Your task to perform on an android device: Search for seafood restaurants on Google Maps Image 0: 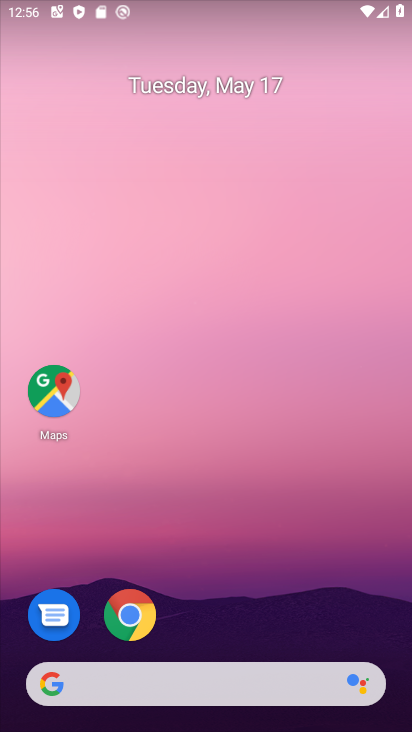
Step 0: click (55, 394)
Your task to perform on an android device: Search for seafood restaurants on Google Maps Image 1: 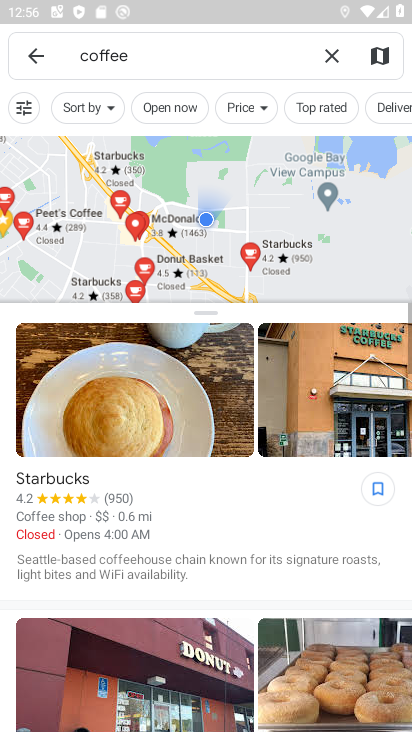
Step 1: click (330, 52)
Your task to perform on an android device: Search for seafood restaurants on Google Maps Image 2: 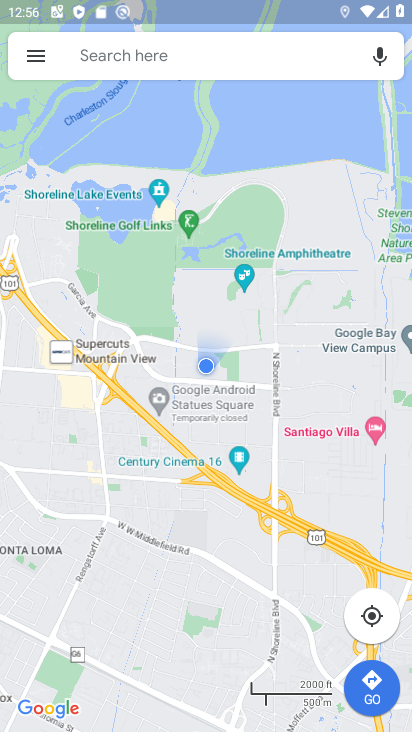
Step 2: click (154, 43)
Your task to perform on an android device: Search for seafood restaurants on Google Maps Image 3: 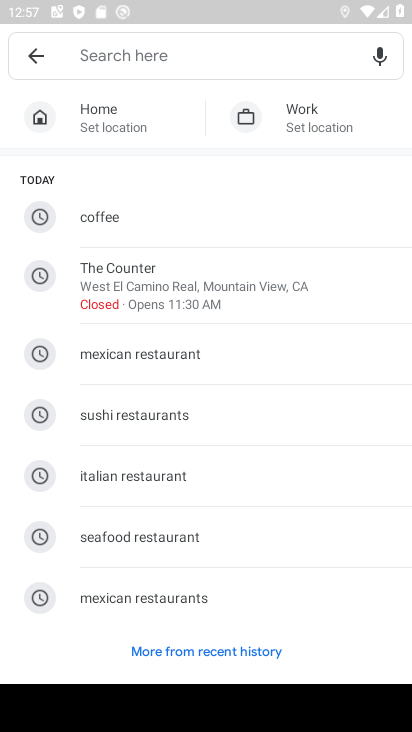
Step 3: type "seafood restaurants"
Your task to perform on an android device: Search for seafood restaurants on Google Maps Image 4: 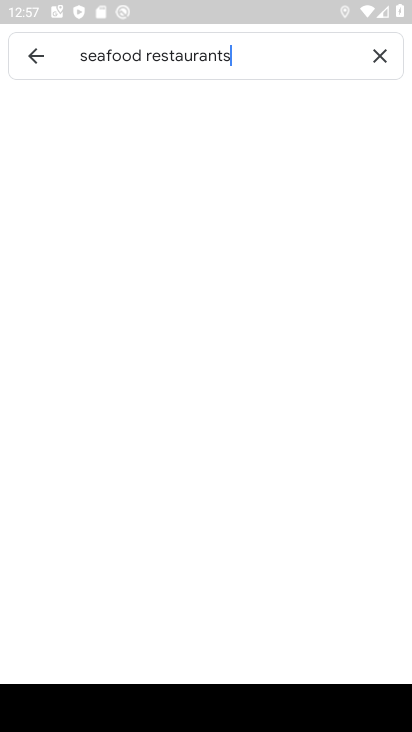
Step 4: type ""
Your task to perform on an android device: Search for seafood restaurants on Google Maps Image 5: 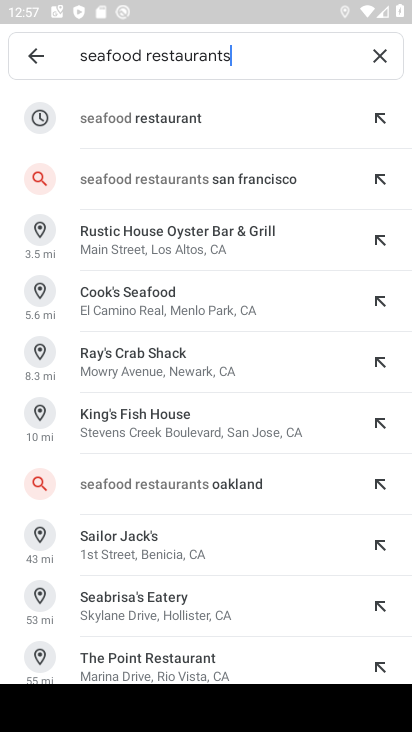
Step 5: click (180, 116)
Your task to perform on an android device: Search for seafood restaurants on Google Maps Image 6: 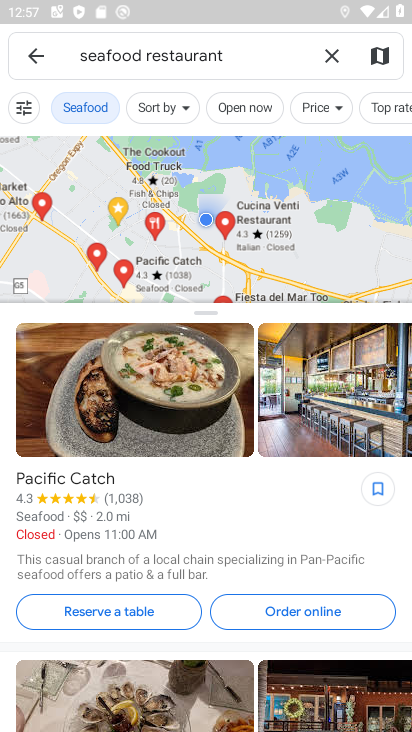
Step 6: task complete